Your task to perform on an android device: Go to calendar. Show me events next week Image 0: 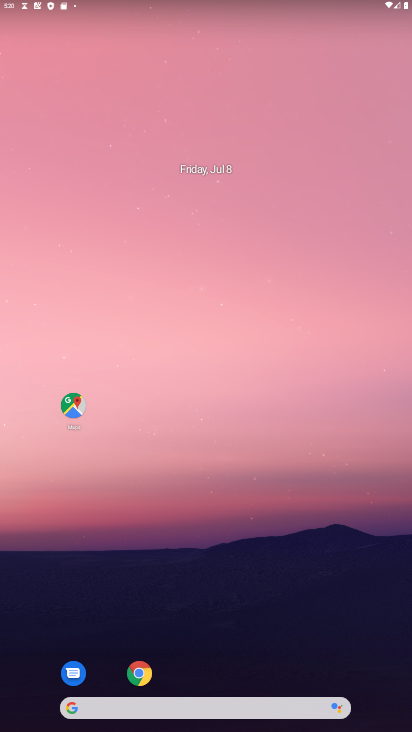
Step 0: drag from (194, 636) to (171, 209)
Your task to perform on an android device: Go to calendar. Show me events next week Image 1: 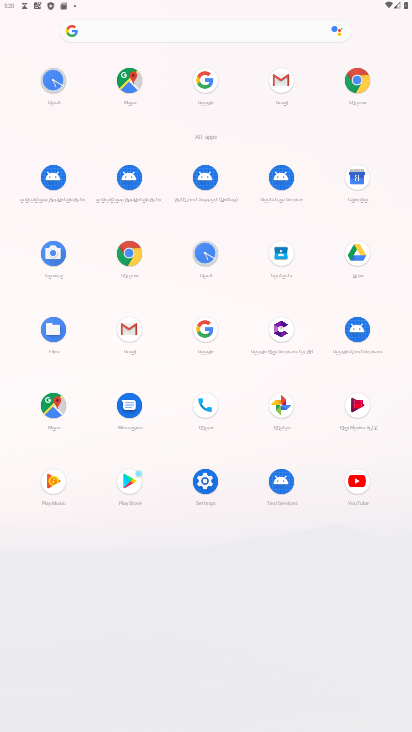
Step 1: click (358, 192)
Your task to perform on an android device: Go to calendar. Show me events next week Image 2: 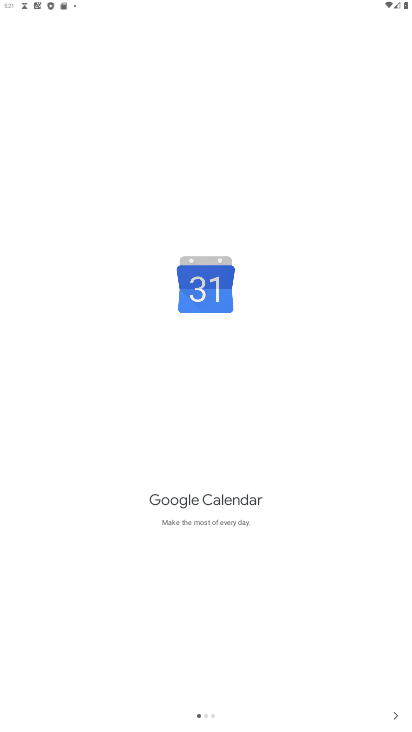
Step 2: click (395, 714)
Your task to perform on an android device: Go to calendar. Show me events next week Image 3: 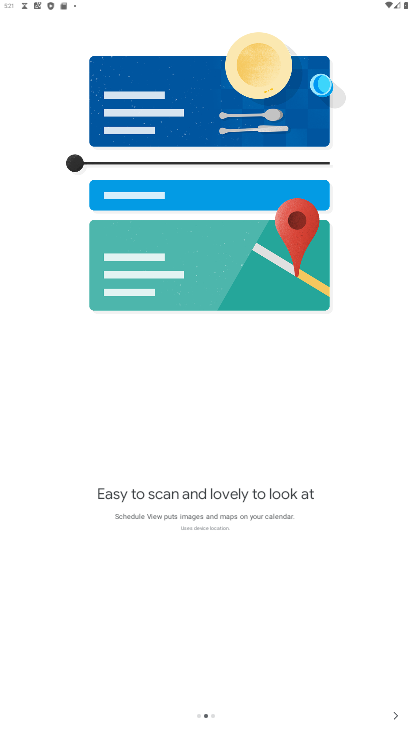
Step 3: click (395, 714)
Your task to perform on an android device: Go to calendar. Show me events next week Image 4: 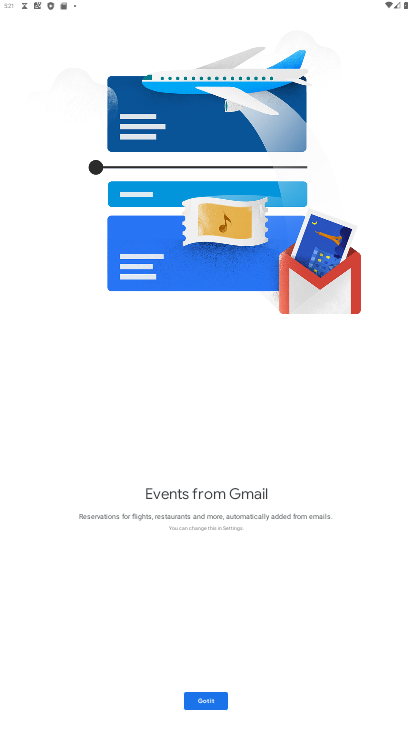
Step 4: click (193, 699)
Your task to perform on an android device: Go to calendar. Show me events next week Image 5: 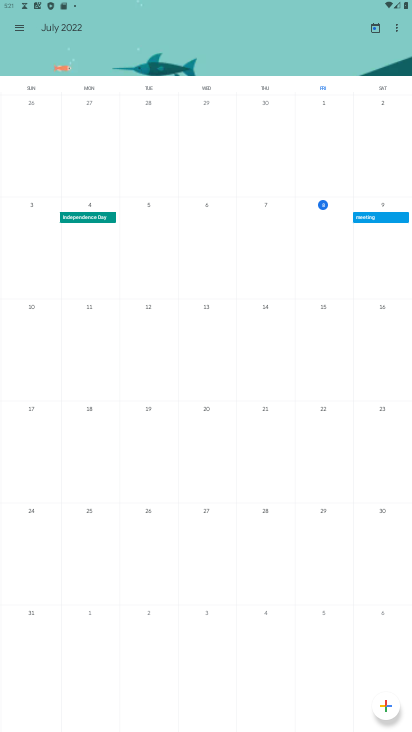
Step 5: task complete